Your task to perform on an android device: toggle priority inbox in the gmail app Image 0: 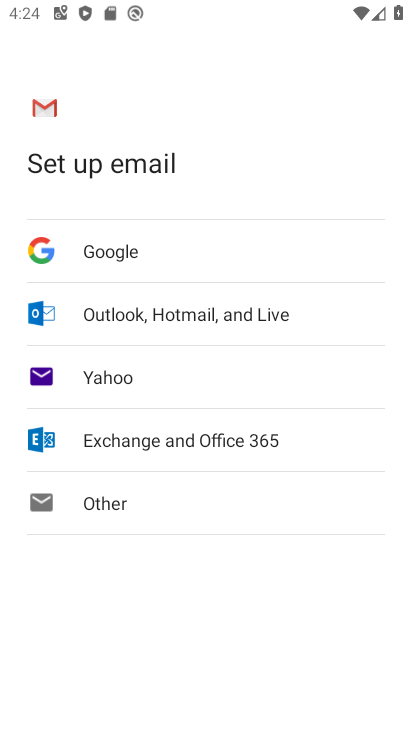
Step 0: drag from (238, 631) to (294, 592)
Your task to perform on an android device: toggle priority inbox in the gmail app Image 1: 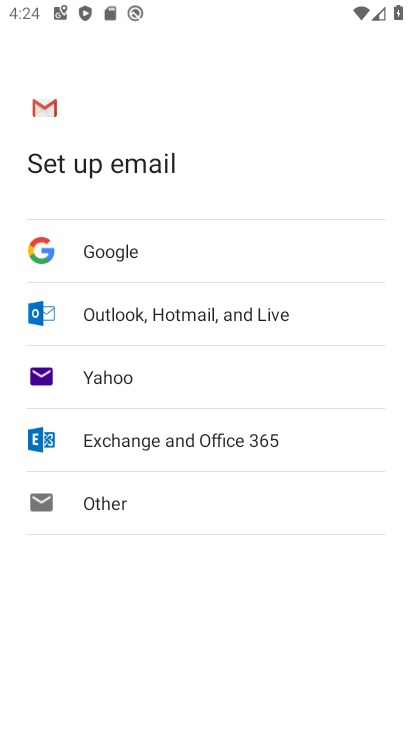
Step 1: press home button
Your task to perform on an android device: toggle priority inbox in the gmail app Image 2: 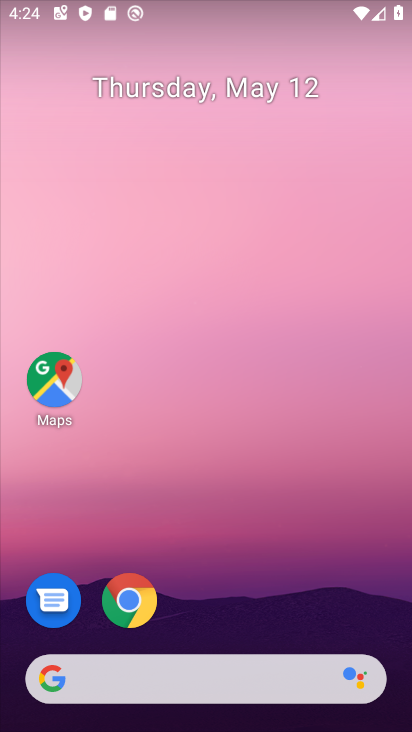
Step 2: drag from (204, 622) to (296, 347)
Your task to perform on an android device: toggle priority inbox in the gmail app Image 3: 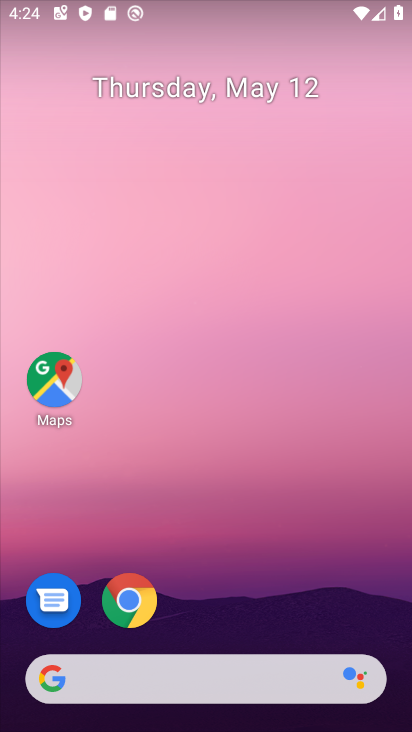
Step 3: drag from (189, 625) to (284, 292)
Your task to perform on an android device: toggle priority inbox in the gmail app Image 4: 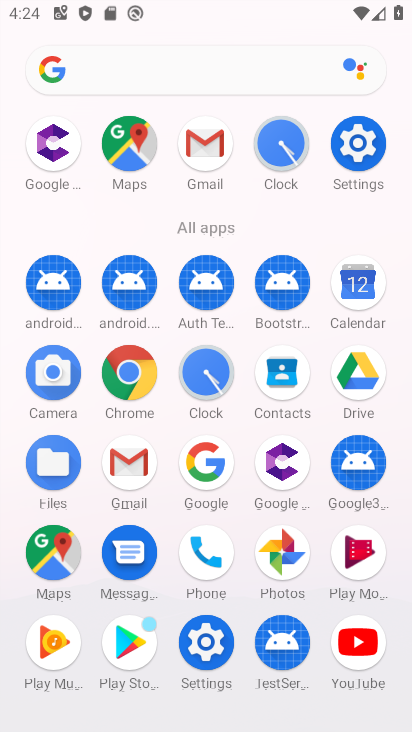
Step 4: click (122, 464)
Your task to perform on an android device: toggle priority inbox in the gmail app Image 5: 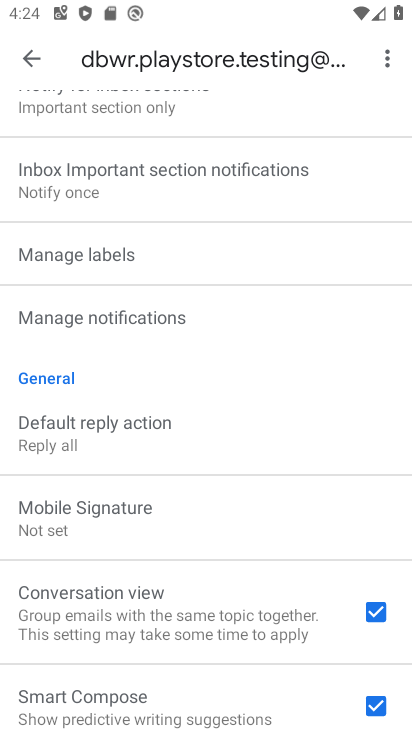
Step 5: drag from (235, 207) to (210, 727)
Your task to perform on an android device: toggle priority inbox in the gmail app Image 6: 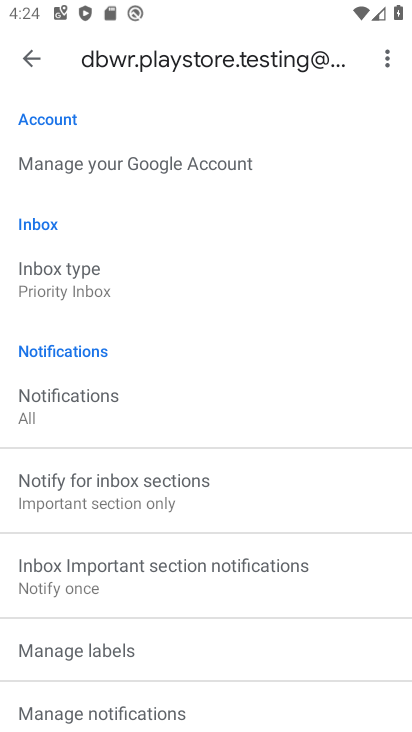
Step 6: drag from (173, 596) to (198, 414)
Your task to perform on an android device: toggle priority inbox in the gmail app Image 7: 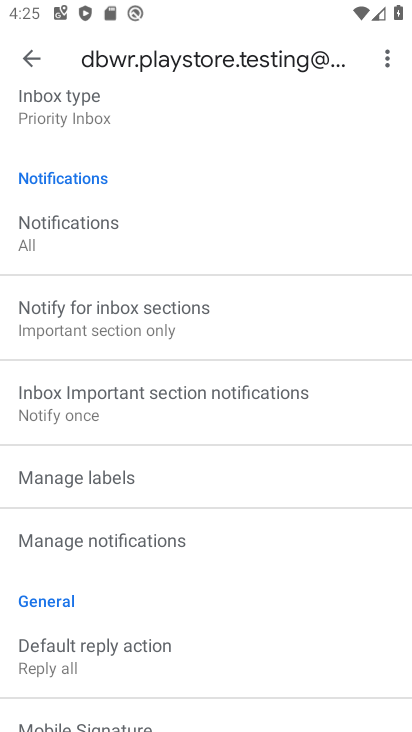
Step 7: drag from (225, 213) to (175, 547)
Your task to perform on an android device: toggle priority inbox in the gmail app Image 8: 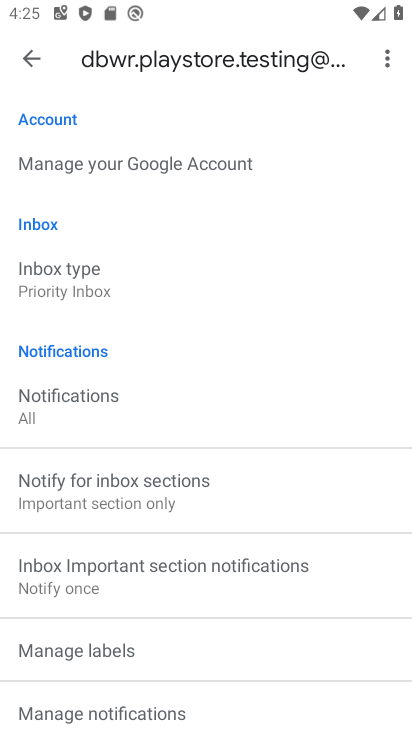
Step 8: click (91, 278)
Your task to perform on an android device: toggle priority inbox in the gmail app Image 9: 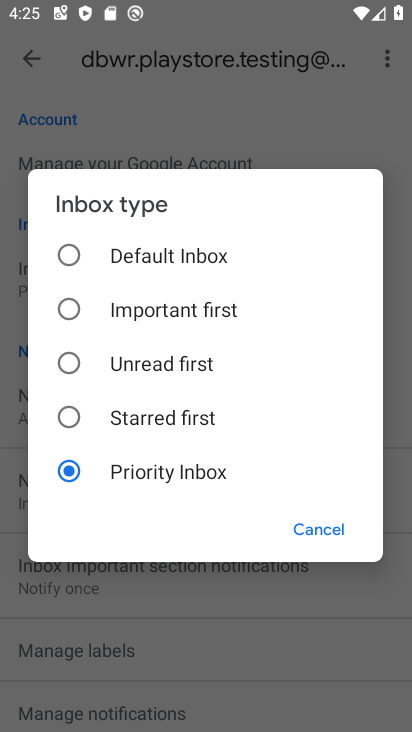
Step 9: click (143, 267)
Your task to perform on an android device: toggle priority inbox in the gmail app Image 10: 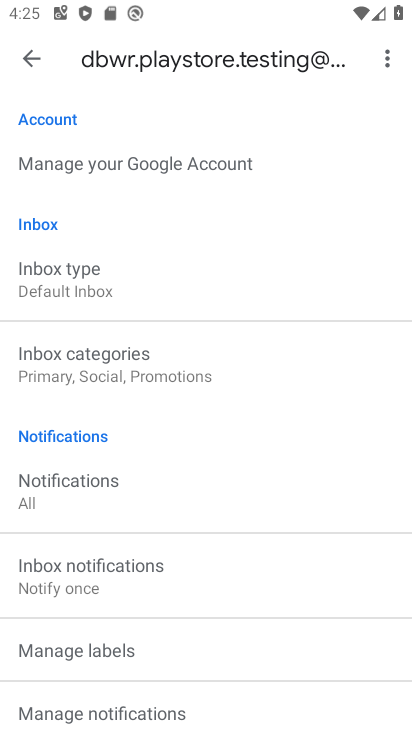
Step 10: task complete